Your task to perform on an android device: empty trash in google photos Image 0: 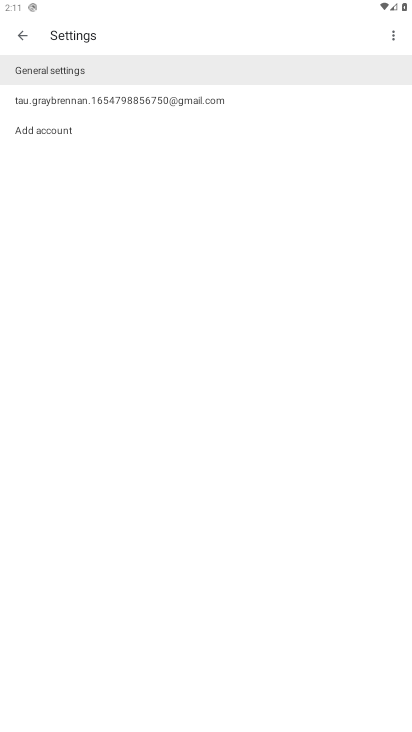
Step 0: press home button
Your task to perform on an android device: empty trash in google photos Image 1: 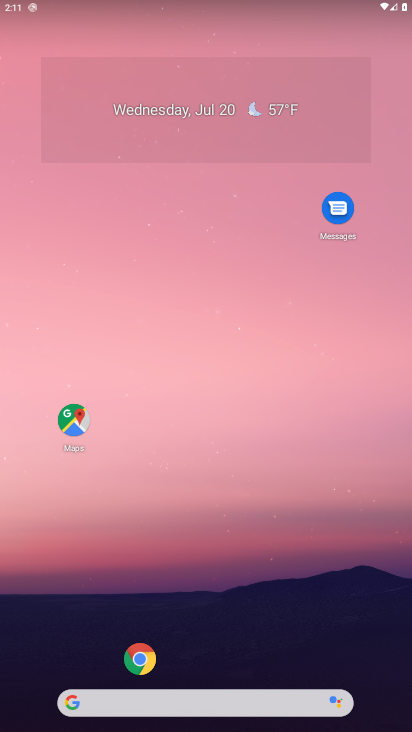
Step 1: drag from (32, 705) to (251, 197)
Your task to perform on an android device: empty trash in google photos Image 2: 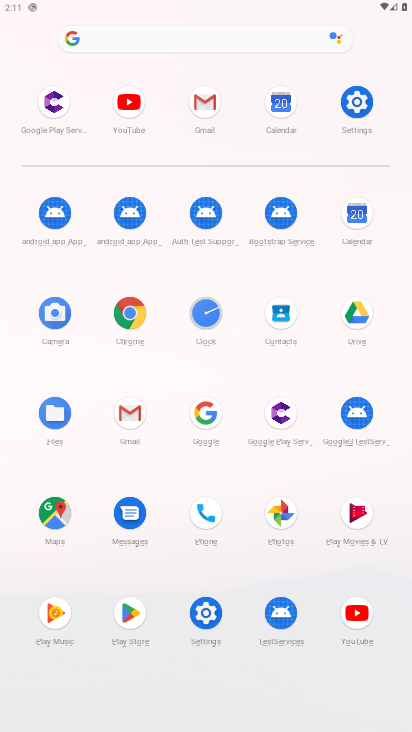
Step 2: click (286, 508)
Your task to perform on an android device: empty trash in google photos Image 3: 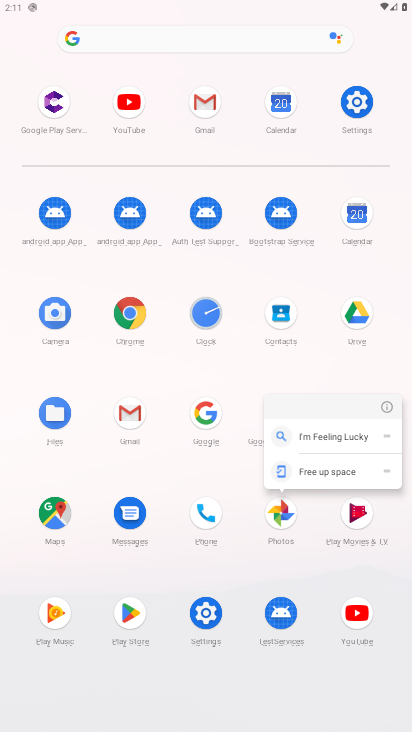
Step 3: click (276, 520)
Your task to perform on an android device: empty trash in google photos Image 4: 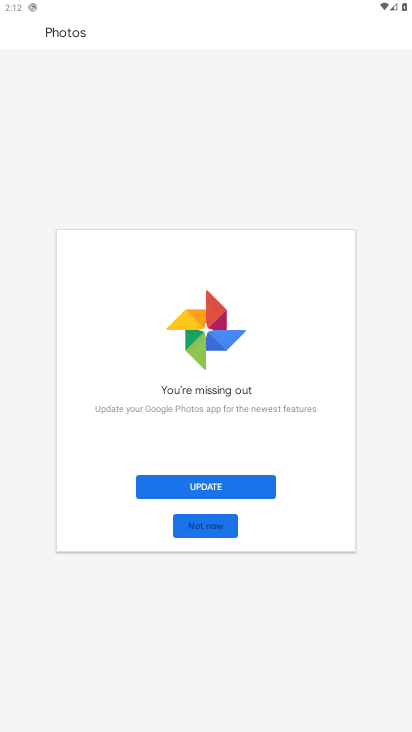
Step 4: click (211, 470)
Your task to perform on an android device: empty trash in google photos Image 5: 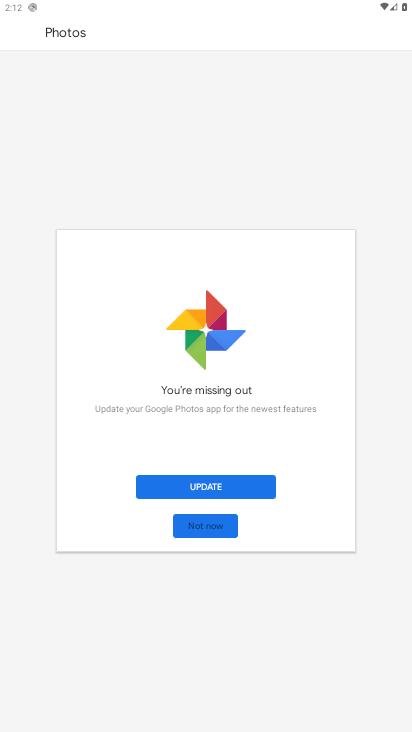
Step 5: click (242, 481)
Your task to perform on an android device: empty trash in google photos Image 6: 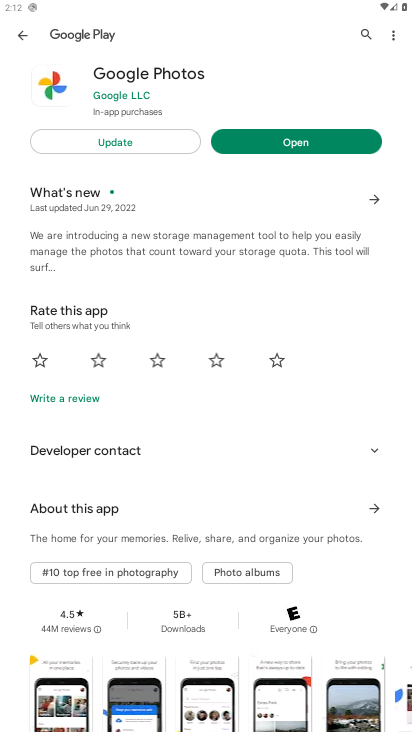
Step 6: click (270, 144)
Your task to perform on an android device: empty trash in google photos Image 7: 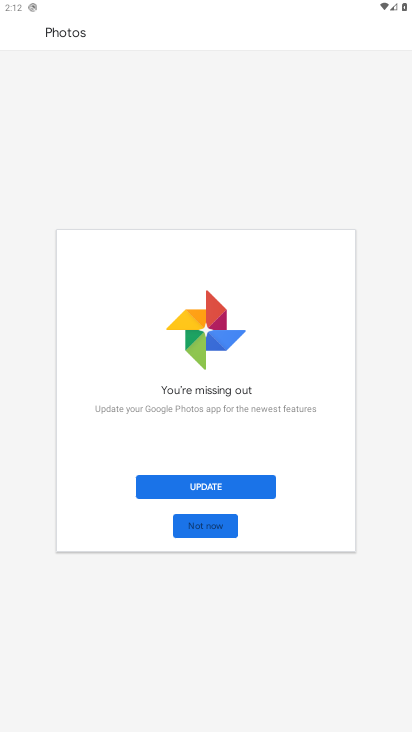
Step 7: task complete